Your task to perform on an android device: Check the news Image 0: 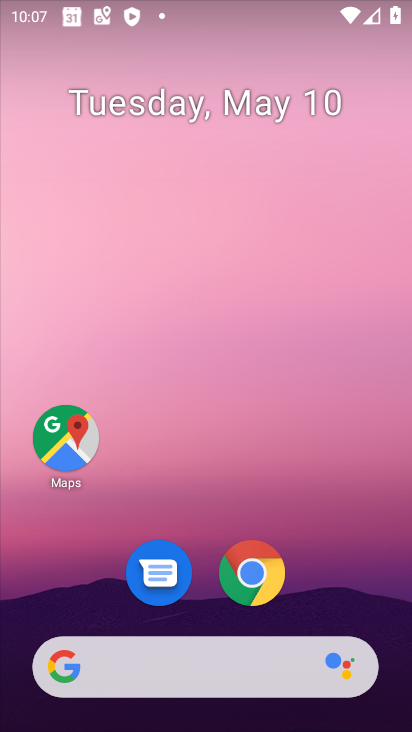
Step 0: drag from (2, 223) to (384, 427)
Your task to perform on an android device: Check the news Image 1: 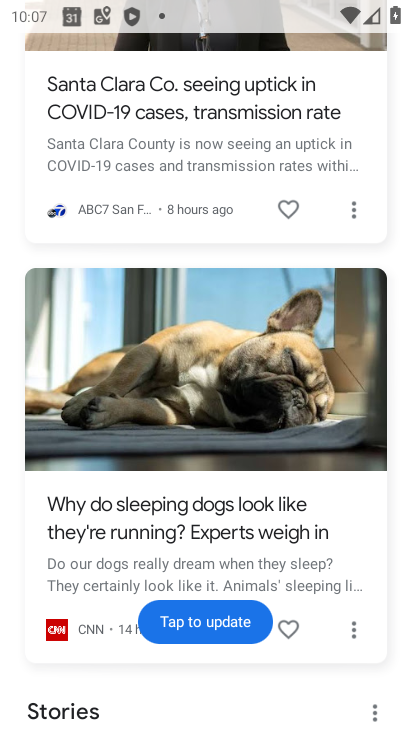
Step 1: task complete